Your task to perform on an android device: open app "The Home Depot" (install if not already installed) Image 0: 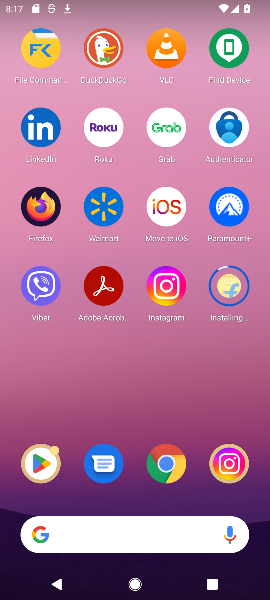
Step 0: click (34, 474)
Your task to perform on an android device: open app "The Home Depot" (install if not already installed) Image 1: 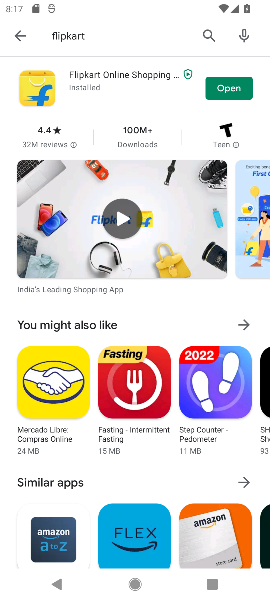
Step 1: click (208, 44)
Your task to perform on an android device: open app "The Home Depot" (install if not already installed) Image 2: 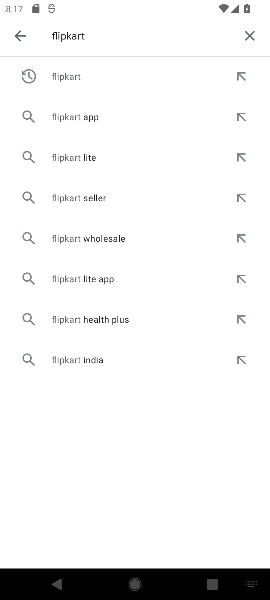
Step 2: click (251, 36)
Your task to perform on an android device: open app "The Home Depot" (install if not already installed) Image 3: 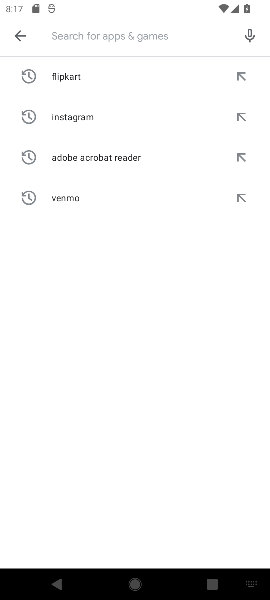
Step 3: type "the home depot"
Your task to perform on an android device: open app "The Home Depot" (install if not already installed) Image 4: 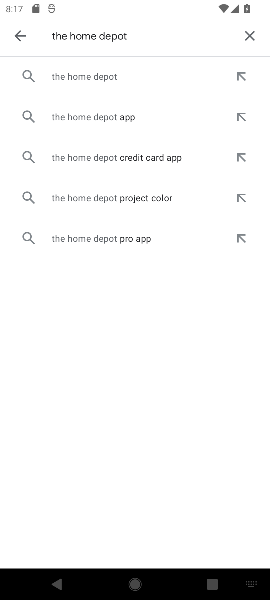
Step 4: click (158, 76)
Your task to perform on an android device: open app "The Home Depot" (install if not already installed) Image 5: 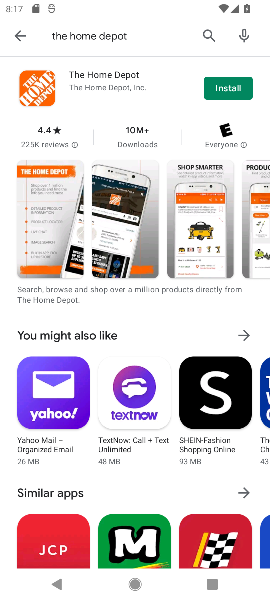
Step 5: click (209, 81)
Your task to perform on an android device: open app "The Home Depot" (install if not already installed) Image 6: 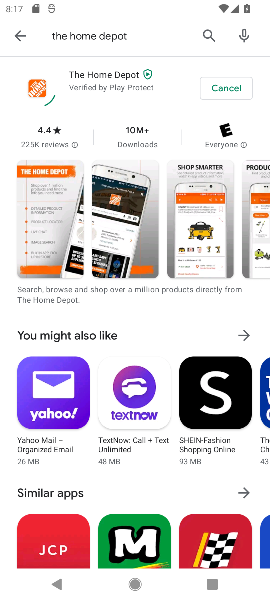
Step 6: task complete